Your task to perform on an android device: Search for Italian restaurants on Maps Image 0: 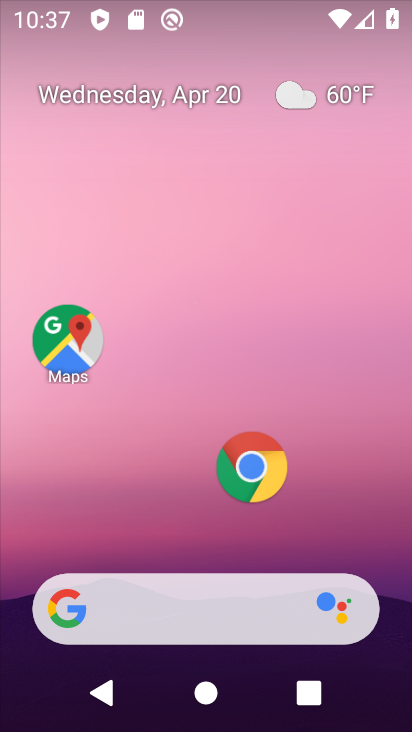
Step 0: click (54, 343)
Your task to perform on an android device: Search for Italian restaurants on Maps Image 1: 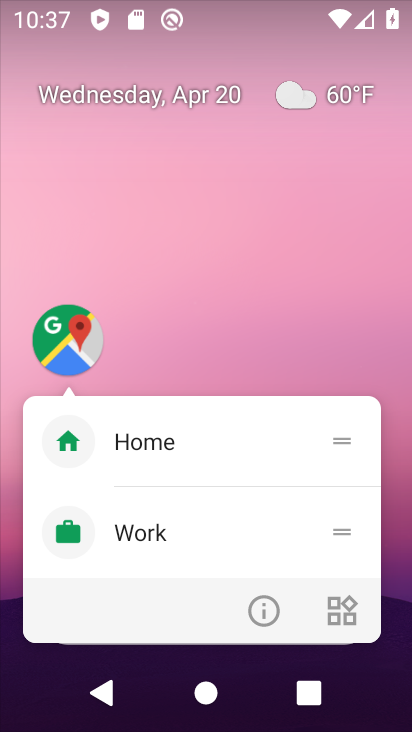
Step 1: click (56, 343)
Your task to perform on an android device: Search for Italian restaurants on Maps Image 2: 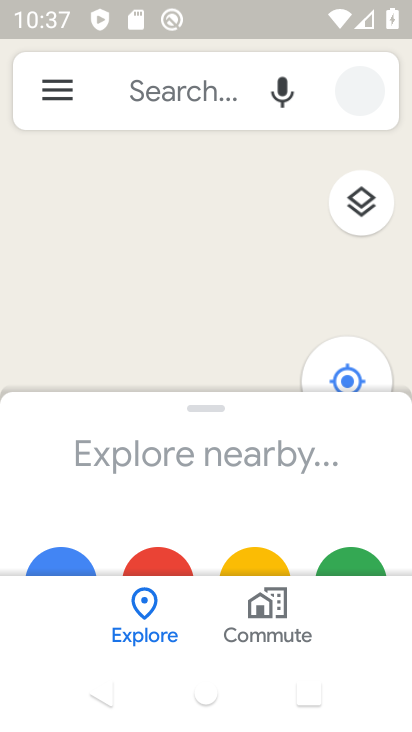
Step 2: click (178, 81)
Your task to perform on an android device: Search for Italian restaurants on Maps Image 3: 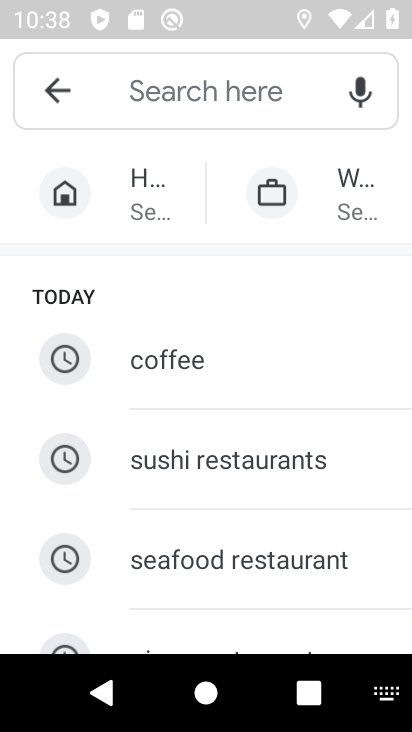
Step 3: type "italian restaurants"
Your task to perform on an android device: Search for Italian restaurants on Maps Image 4: 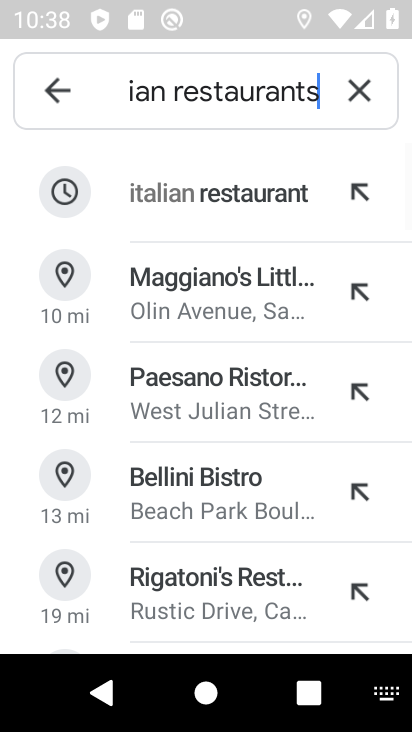
Step 4: click (288, 198)
Your task to perform on an android device: Search for Italian restaurants on Maps Image 5: 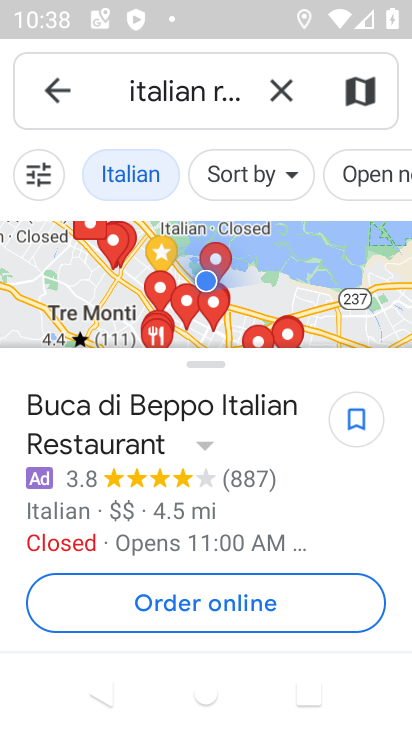
Step 5: task complete